Your task to perform on an android device: stop showing notifications on the lock screen Image 0: 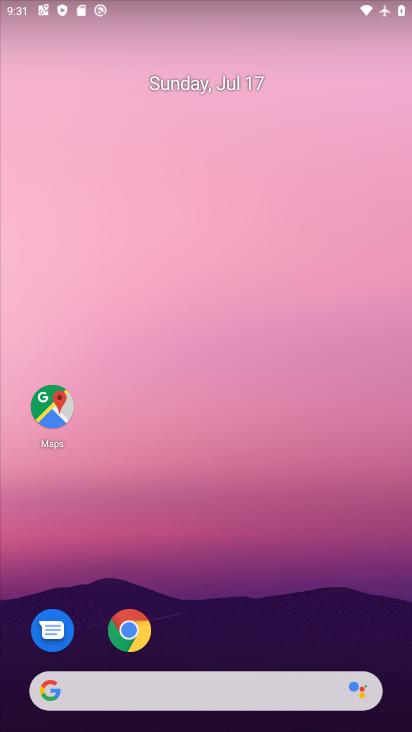
Step 0: drag from (331, 629) to (324, 182)
Your task to perform on an android device: stop showing notifications on the lock screen Image 1: 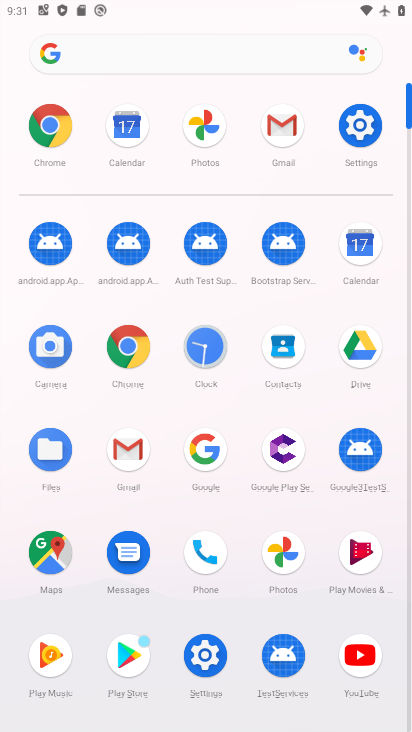
Step 1: click (353, 146)
Your task to perform on an android device: stop showing notifications on the lock screen Image 2: 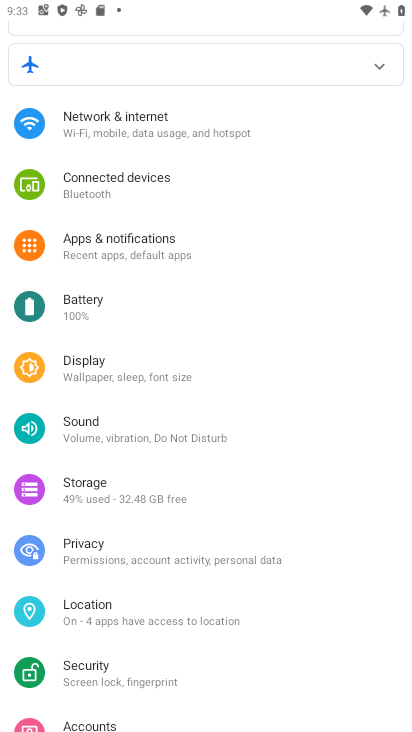
Step 2: click (180, 249)
Your task to perform on an android device: stop showing notifications on the lock screen Image 3: 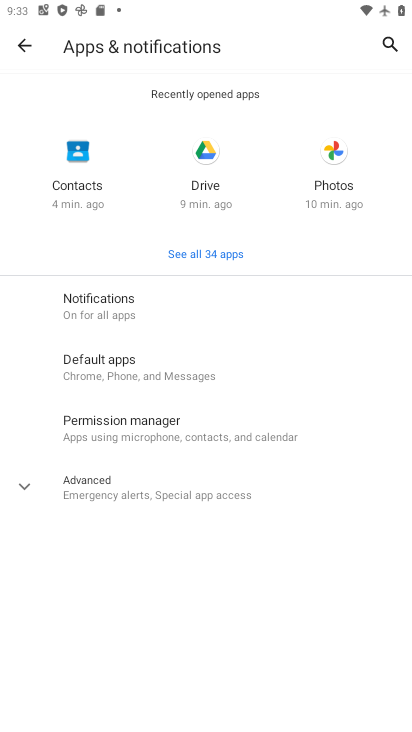
Step 3: click (115, 474)
Your task to perform on an android device: stop showing notifications on the lock screen Image 4: 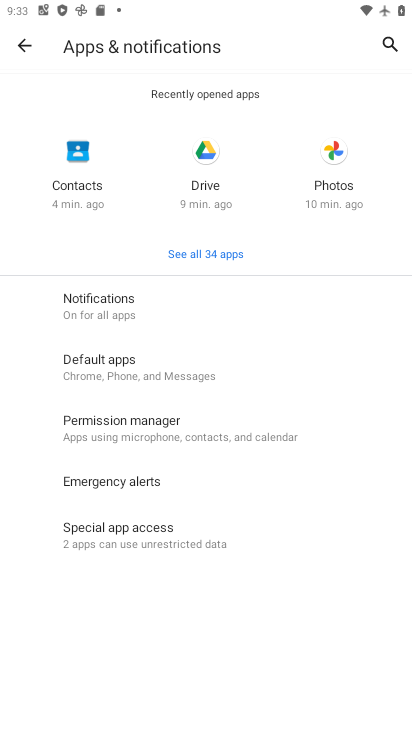
Step 4: click (127, 296)
Your task to perform on an android device: stop showing notifications on the lock screen Image 5: 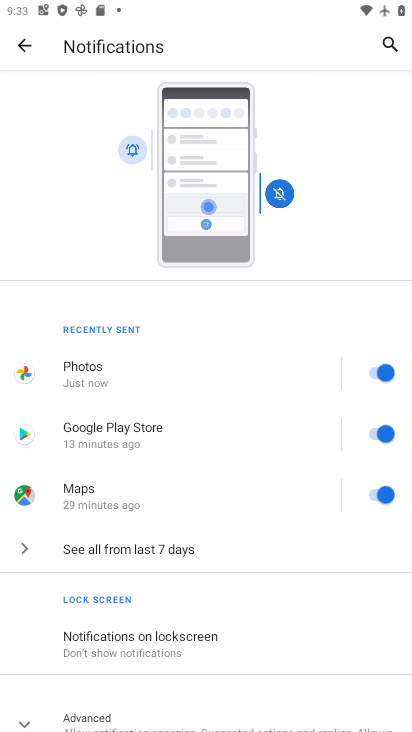
Step 5: click (184, 651)
Your task to perform on an android device: stop showing notifications on the lock screen Image 6: 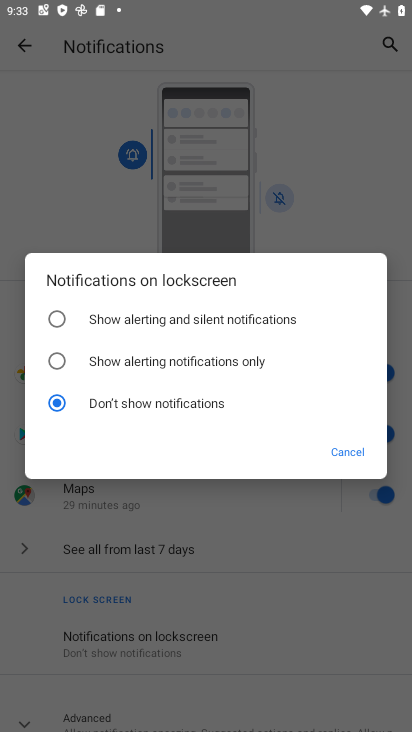
Step 6: task complete